Your task to perform on an android device: What's on my calendar today? Image 0: 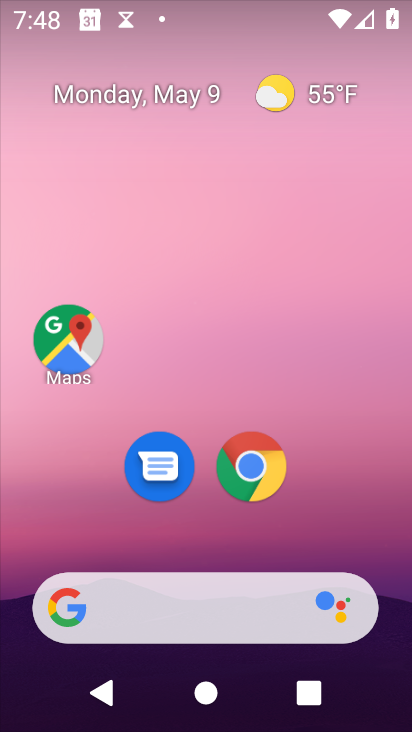
Step 0: drag from (335, 551) to (196, 5)
Your task to perform on an android device: What's on my calendar today? Image 1: 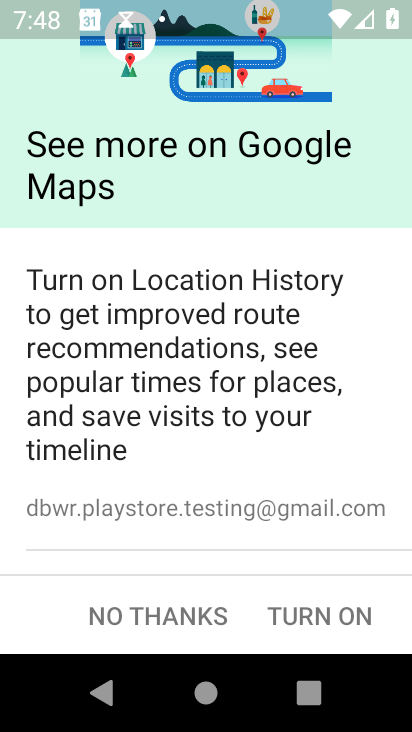
Step 1: press home button
Your task to perform on an android device: What's on my calendar today? Image 2: 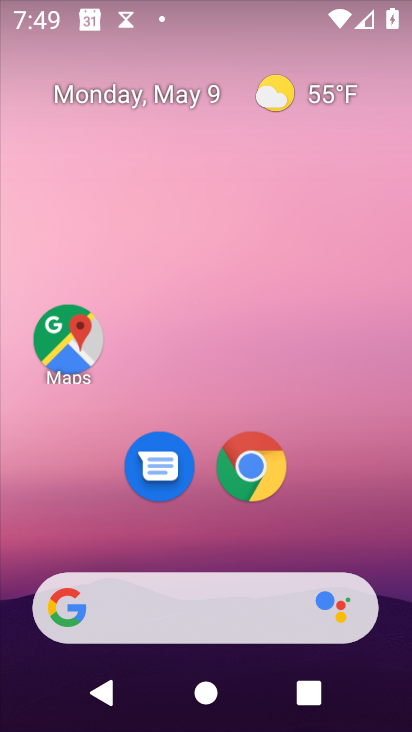
Step 2: drag from (254, 131) to (195, 2)
Your task to perform on an android device: What's on my calendar today? Image 3: 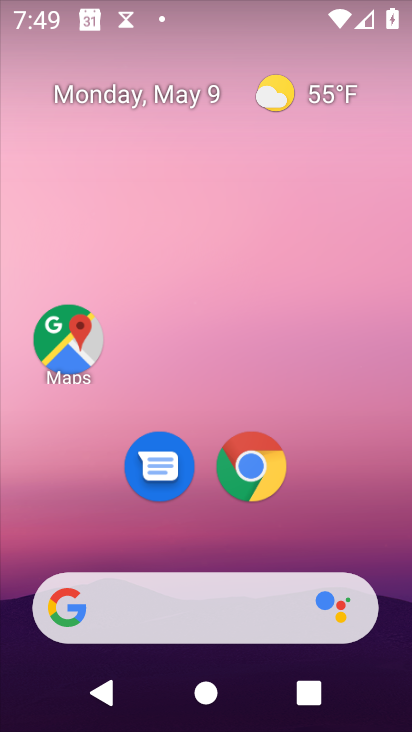
Step 3: drag from (330, 546) to (222, 38)
Your task to perform on an android device: What's on my calendar today? Image 4: 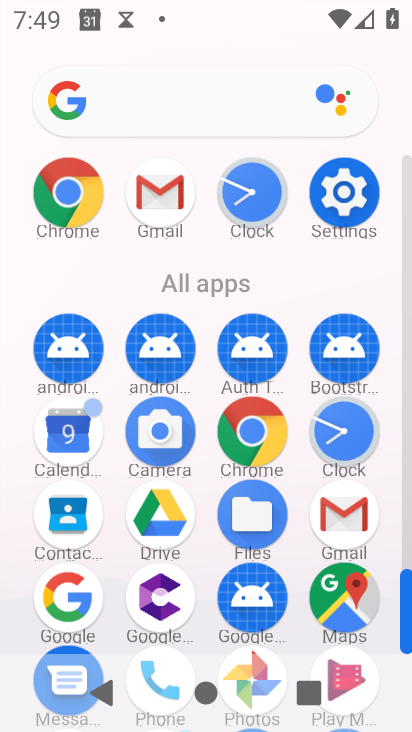
Step 4: click (63, 432)
Your task to perform on an android device: What's on my calendar today? Image 5: 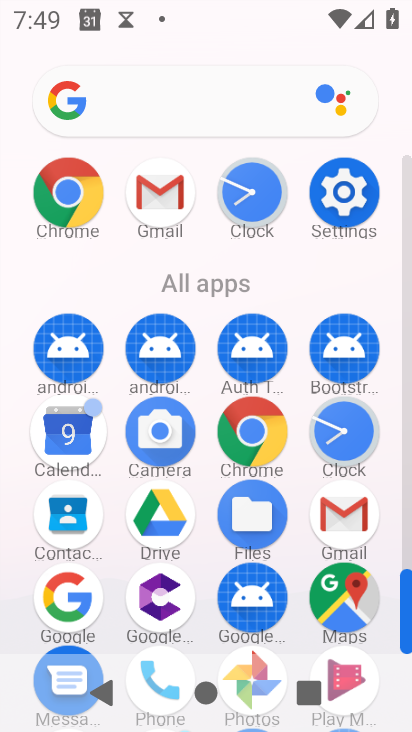
Step 5: click (63, 432)
Your task to perform on an android device: What's on my calendar today? Image 6: 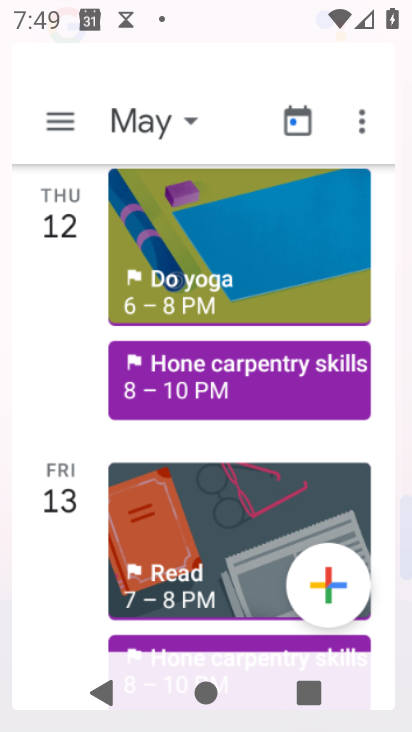
Step 6: click (71, 439)
Your task to perform on an android device: What's on my calendar today? Image 7: 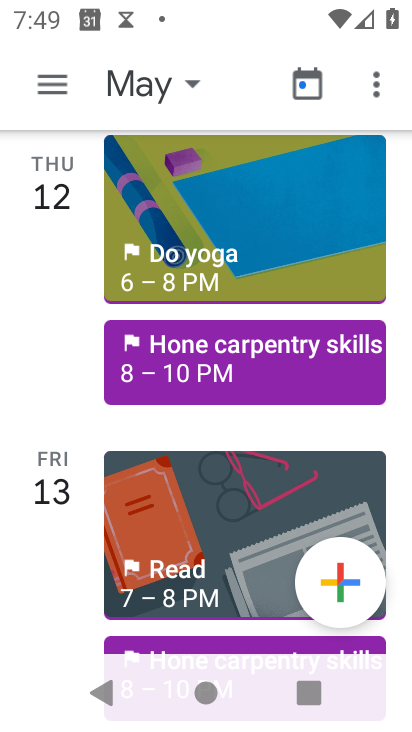
Step 7: drag from (123, 213) to (207, 617)
Your task to perform on an android device: What's on my calendar today? Image 8: 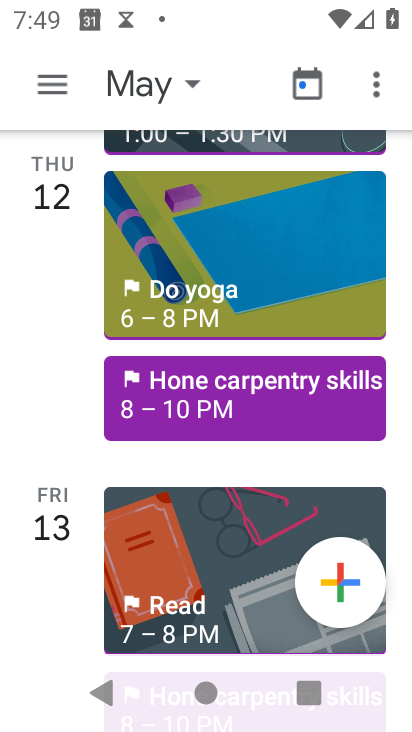
Step 8: drag from (193, 195) to (269, 516)
Your task to perform on an android device: What's on my calendar today? Image 9: 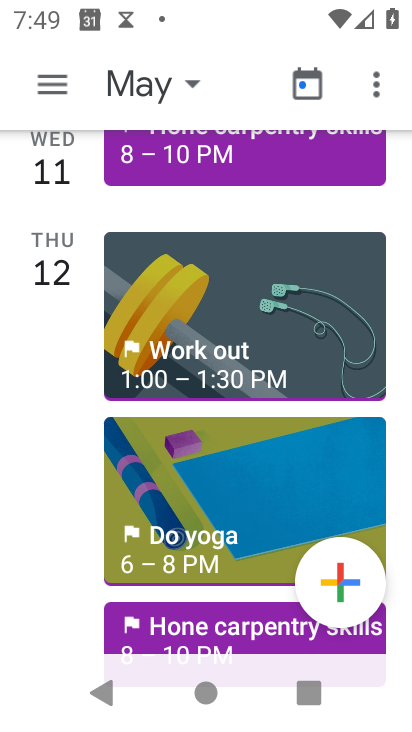
Step 9: drag from (180, 254) to (238, 506)
Your task to perform on an android device: What's on my calendar today? Image 10: 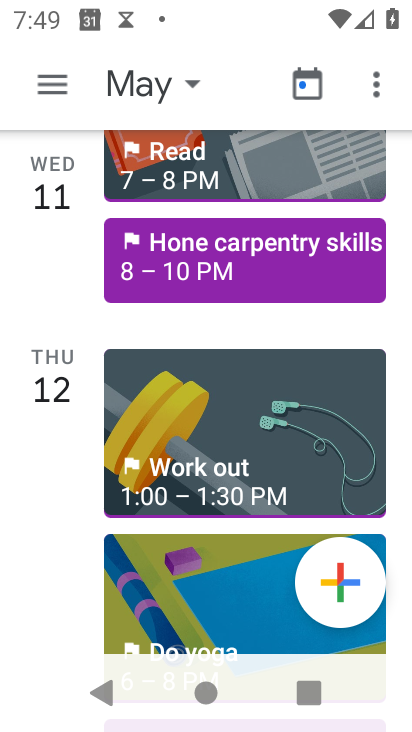
Step 10: drag from (168, 354) to (195, 526)
Your task to perform on an android device: What's on my calendar today? Image 11: 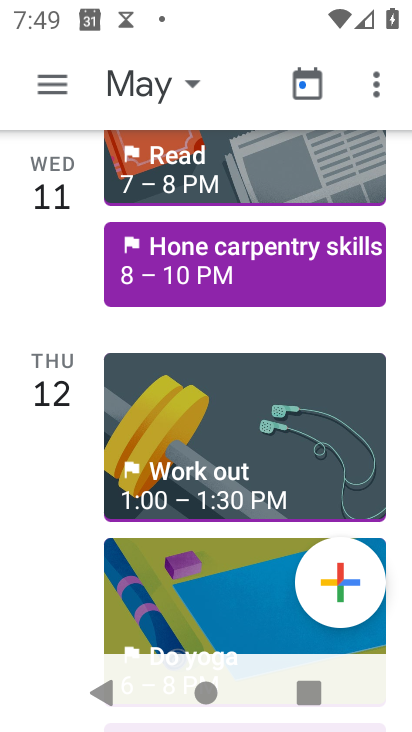
Step 11: drag from (156, 235) to (182, 529)
Your task to perform on an android device: What's on my calendar today? Image 12: 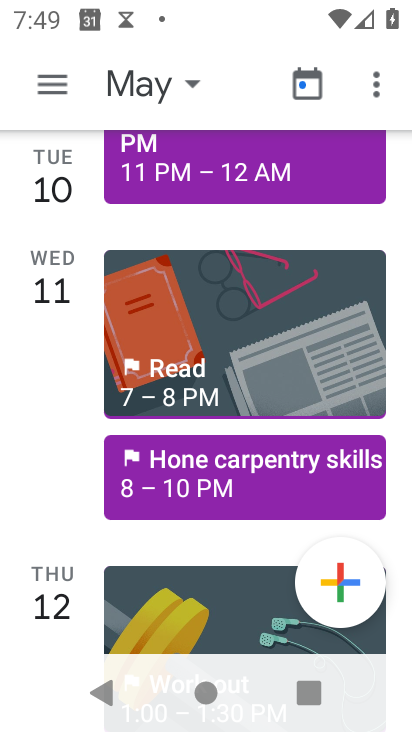
Step 12: click (235, 526)
Your task to perform on an android device: What's on my calendar today? Image 13: 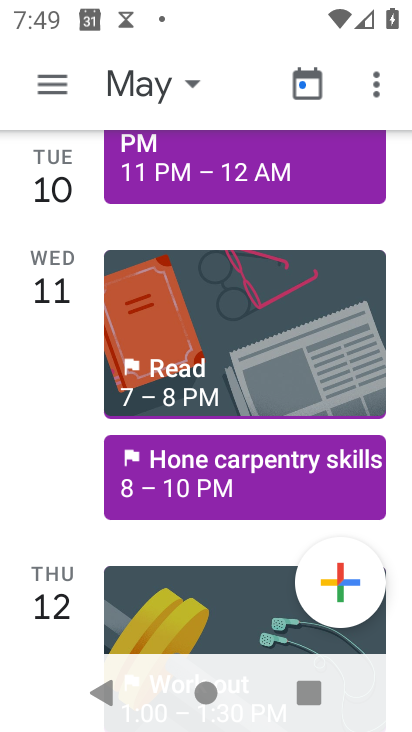
Step 13: drag from (184, 240) to (191, 497)
Your task to perform on an android device: What's on my calendar today? Image 14: 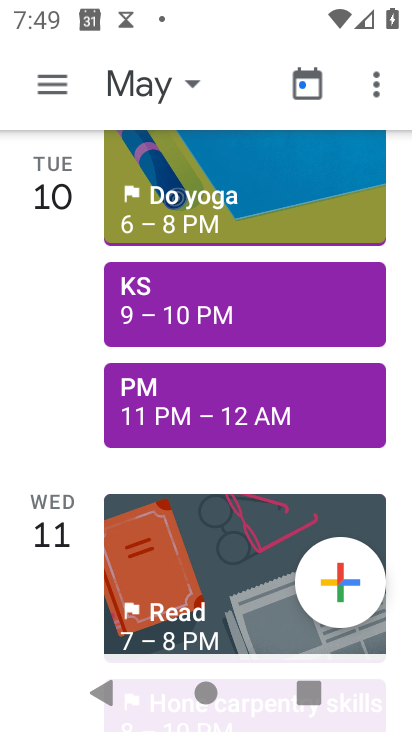
Step 14: click (136, 186)
Your task to perform on an android device: What's on my calendar today? Image 15: 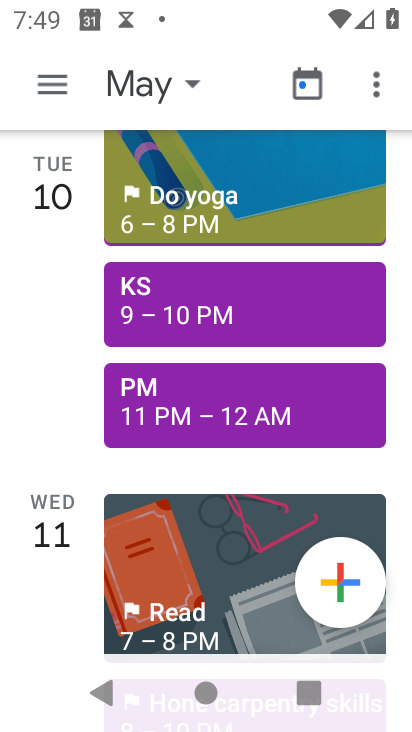
Step 15: click (147, 192)
Your task to perform on an android device: What's on my calendar today? Image 16: 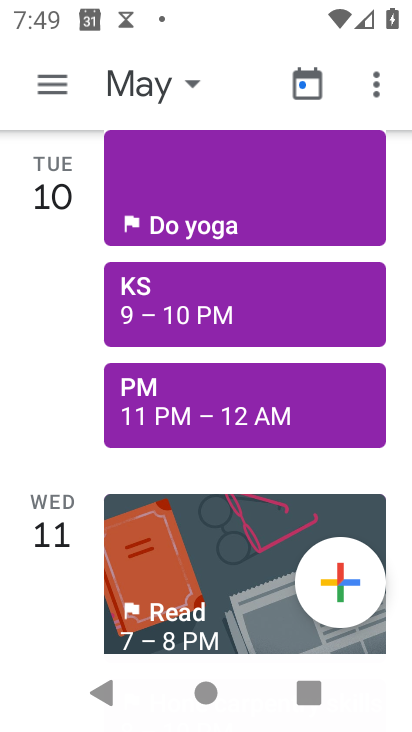
Step 16: click (147, 192)
Your task to perform on an android device: What's on my calendar today? Image 17: 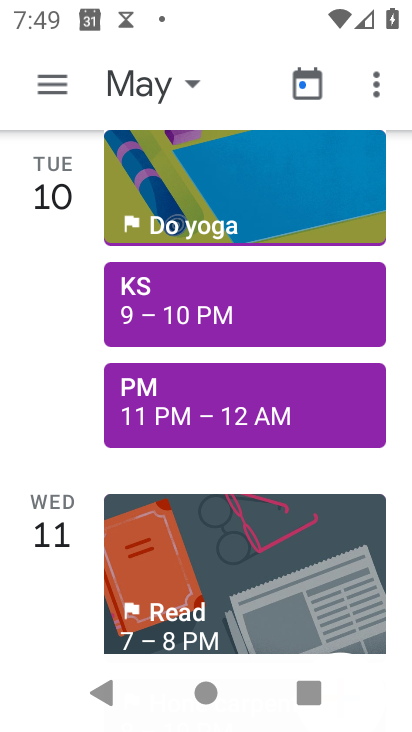
Step 17: click (147, 192)
Your task to perform on an android device: What's on my calendar today? Image 18: 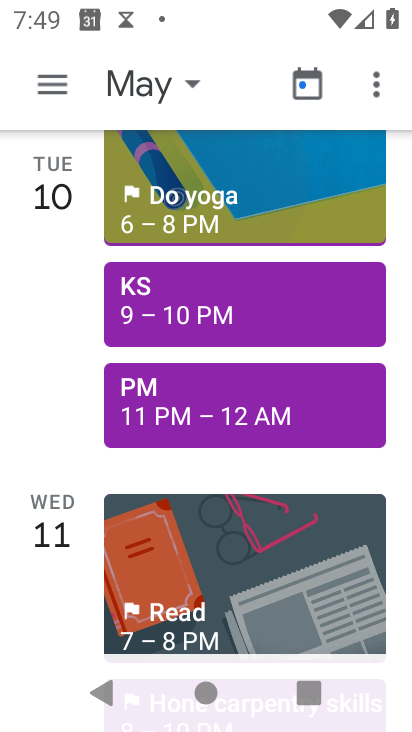
Step 18: click (147, 192)
Your task to perform on an android device: What's on my calendar today? Image 19: 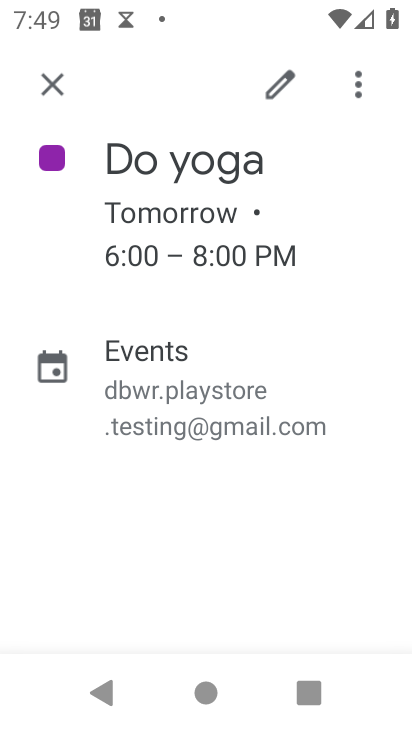
Step 19: click (46, 78)
Your task to perform on an android device: What's on my calendar today? Image 20: 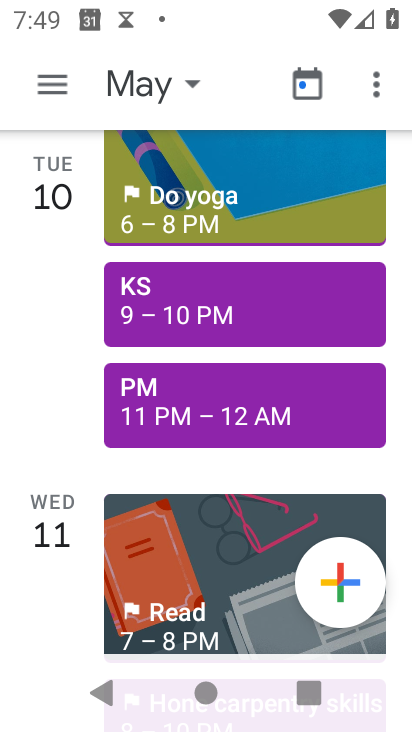
Step 20: task complete